Your task to perform on an android device: turn off javascript in the chrome app Image 0: 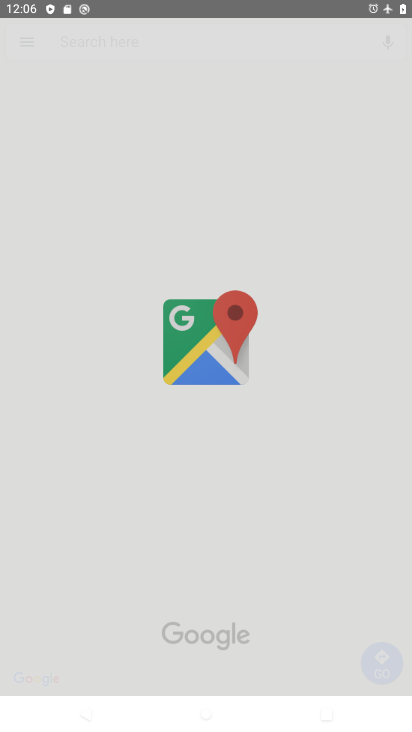
Step 0: drag from (195, 653) to (138, 176)
Your task to perform on an android device: turn off javascript in the chrome app Image 1: 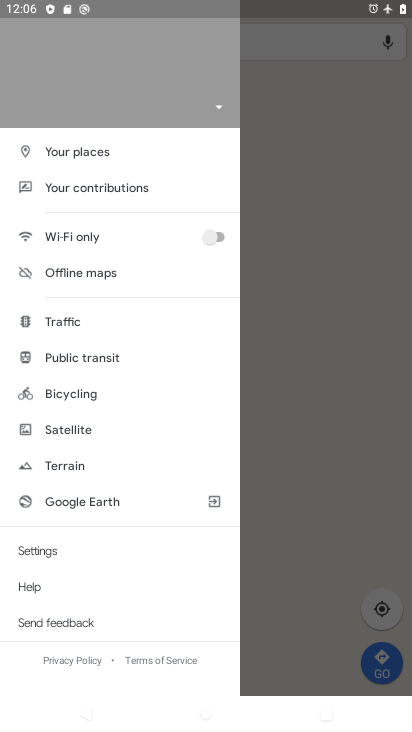
Step 1: press home button
Your task to perform on an android device: turn off javascript in the chrome app Image 2: 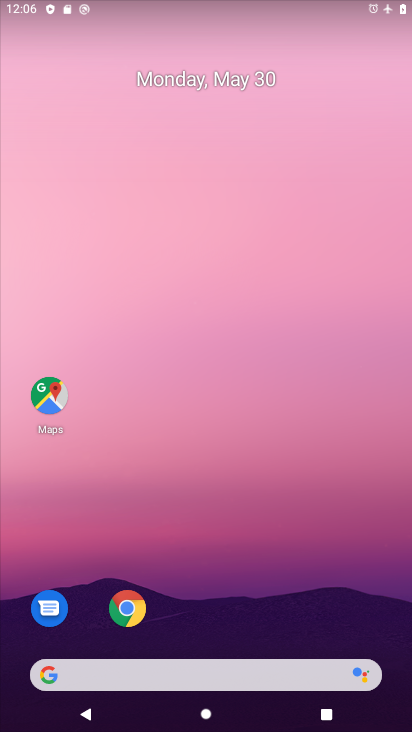
Step 2: click (139, 624)
Your task to perform on an android device: turn off javascript in the chrome app Image 3: 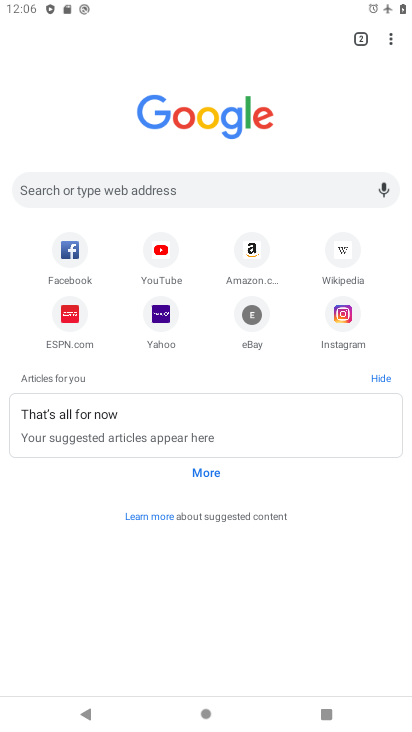
Step 3: drag from (390, 41) to (258, 326)
Your task to perform on an android device: turn off javascript in the chrome app Image 4: 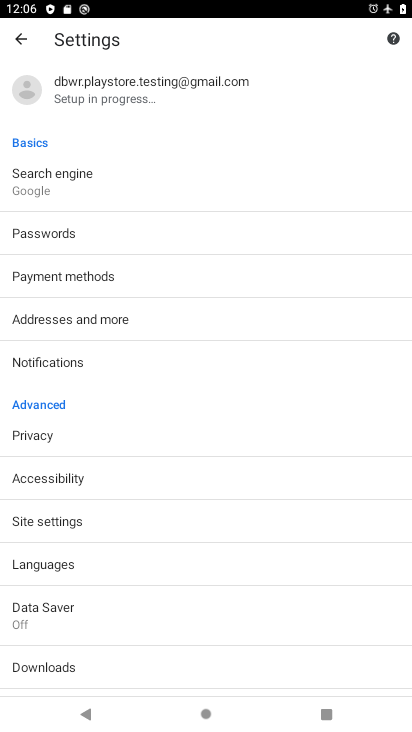
Step 4: click (40, 516)
Your task to perform on an android device: turn off javascript in the chrome app Image 5: 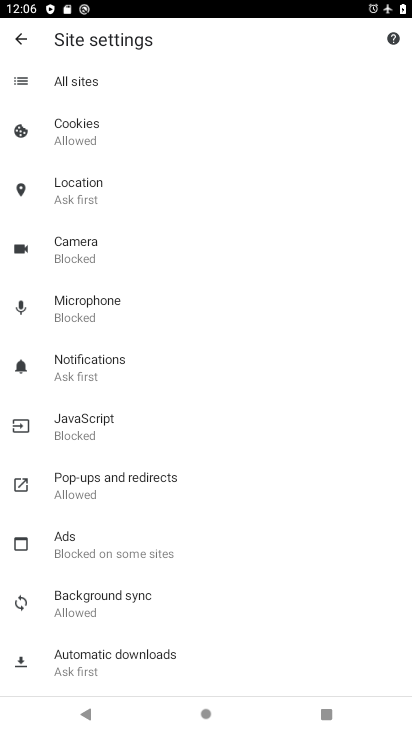
Step 5: click (79, 417)
Your task to perform on an android device: turn off javascript in the chrome app Image 6: 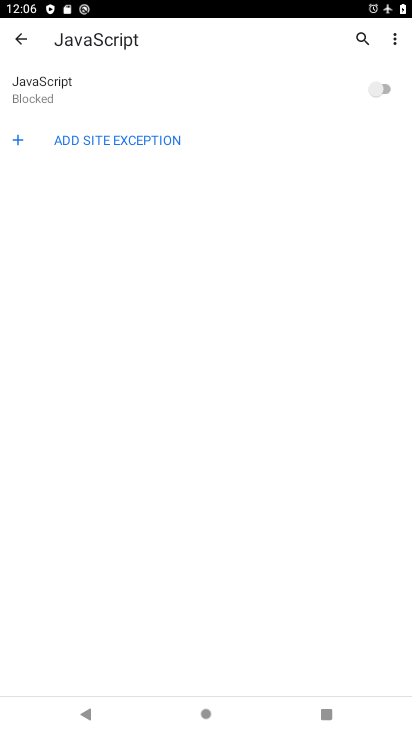
Step 6: task complete